Your task to perform on an android device: change your default location settings in chrome Image 0: 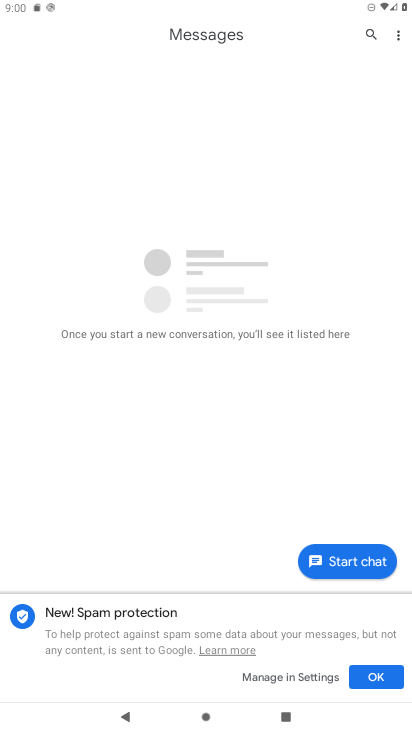
Step 0: press home button
Your task to perform on an android device: change your default location settings in chrome Image 1: 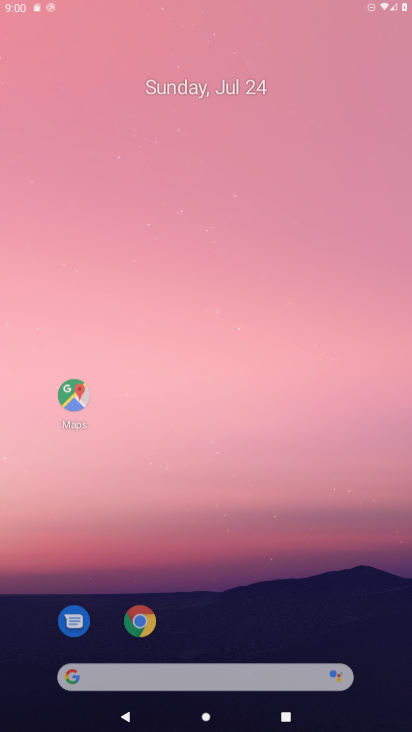
Step 1: drag from (347, 650) to (131, 30)
Your task to perform on an android device: change your default location settings in chrome Image 2: 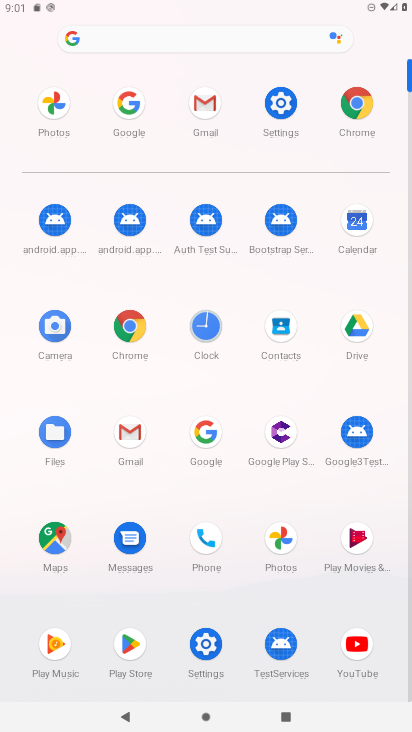
Step 2: click (136, 323)
Your task to perform on an android device: change your default location settings in chrome Image 3: 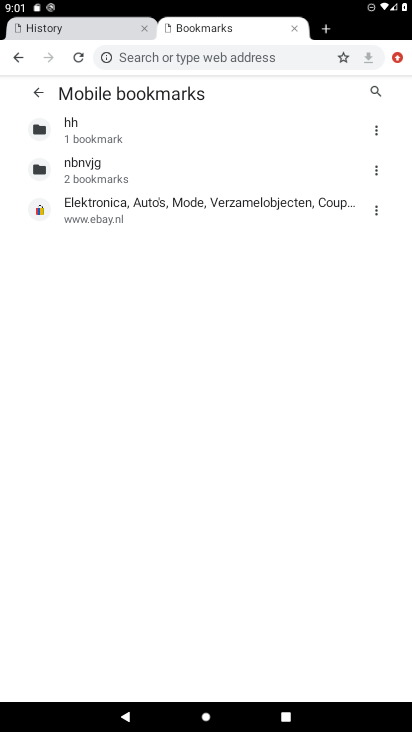
Step 3: click (398, 56)
Your task to perform on an android device: change your default location settings in chrome Image 4: 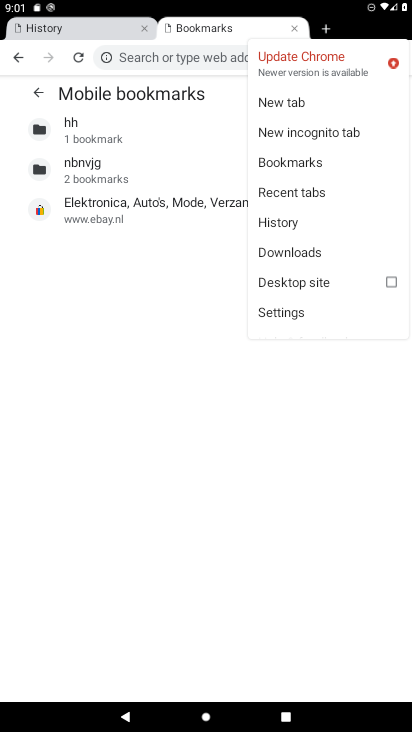
Step 4: click (284, 313)
Your task to perform on an android device: change your default location settings in chrome Image 5: 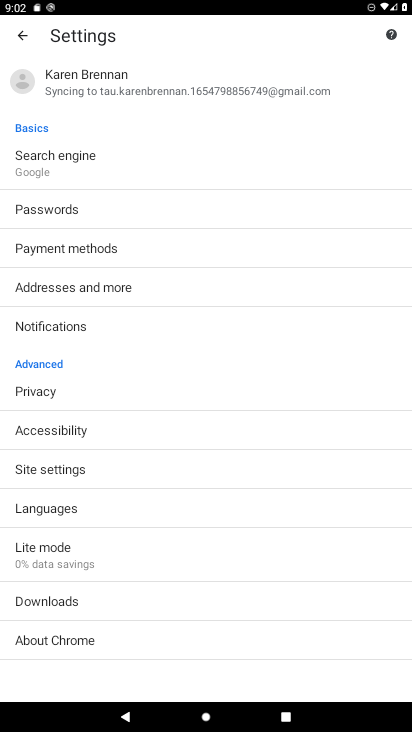
Step 5: click (77, 168)
Your task to perform on an android device: change your default location settings in chrome Image 6: 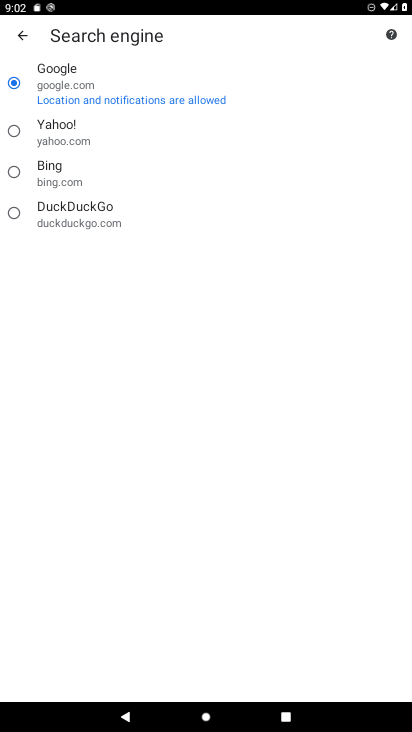
Step 6: click (78, 169)
Your task to perform on an android device: change your default location settings in chrome Image 7: 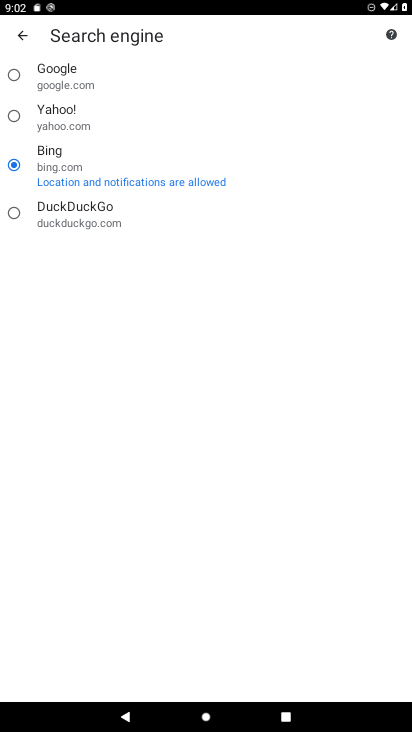
Step 7: task complete